Your task to perform on an android device: Open maps Image 0: 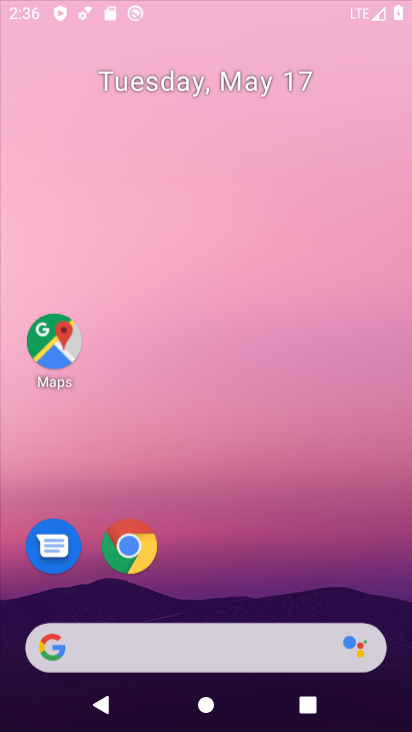
Step 0: press home button
Your task to perform on an android device: Open maps Image 1: 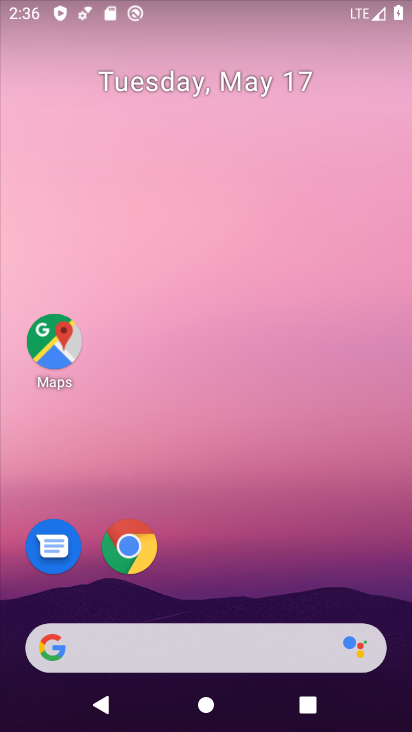
Step 1: click (40, 320)
Your task to perform on an android device: Open maps Image 2: 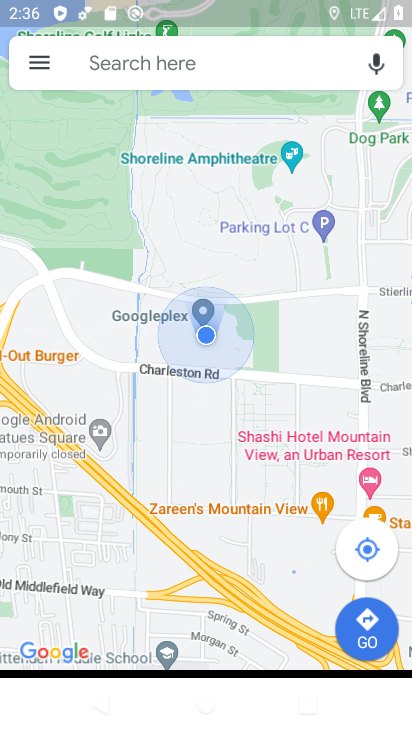
Step 2: task complete